Your task to perform on an android device: turn off wifi Image 0: 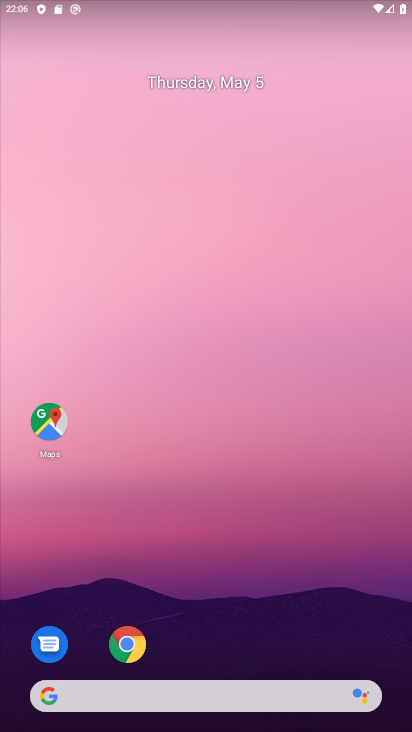
Step 0: drag from (220, 670) to (221, 21)
Your task to perform on an android device: turn off wifi Image 1: 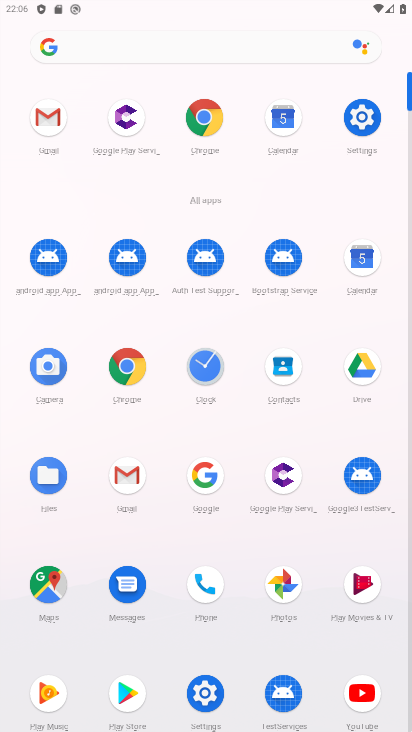
Step 1: click (363, 117)
Your task to perform on an android device: turn off wifi Image 2: 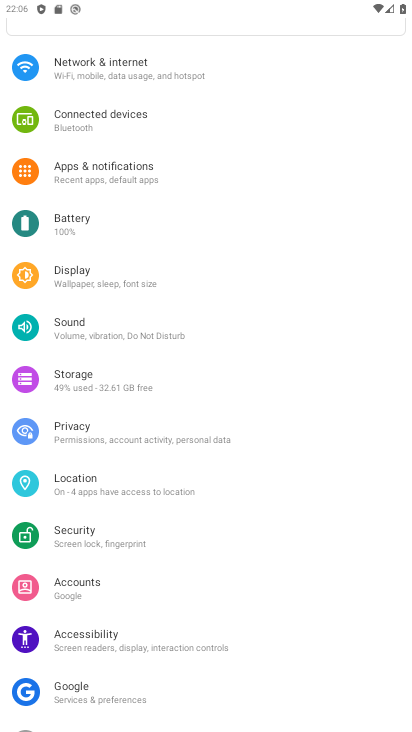
Step 2: click (83, 72)
Your task to perform on an android device: turn off wifi Image 3: 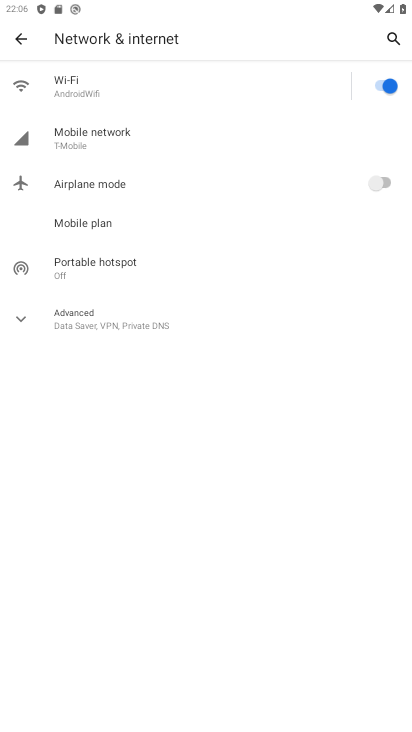
Step 3: click (377, 71)
Your task to perform on an android device: turn off wifi Image 4: 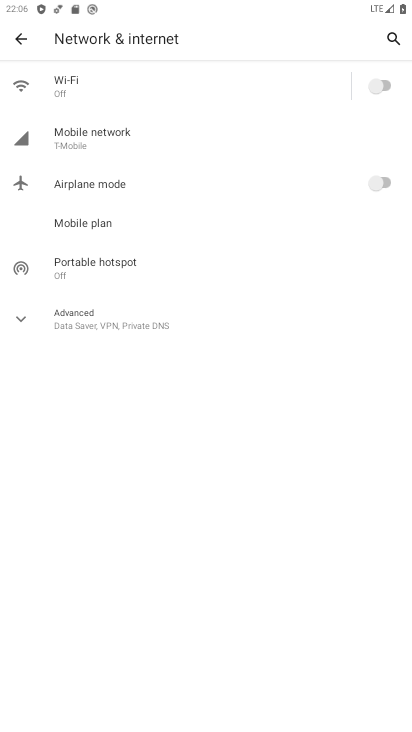
Step 4: task complete